Your task to perform on an android device: Go to Yahoo.com Image 0: 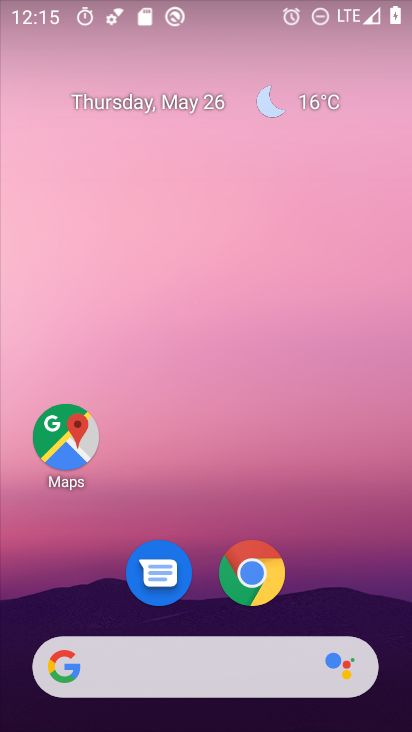
Step 0: click (268, 579)
Your task to perform on an android device: Go to Yahoo.com Image 1: 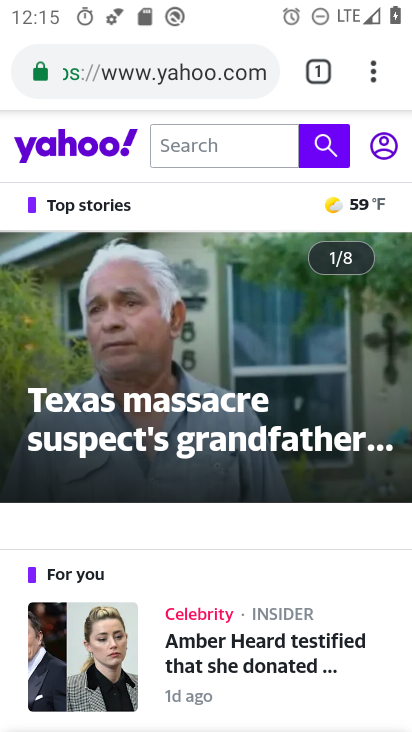
Step 1: task complete